Your task to perform on an android device: turn off javascript in the chrome app Image 0: 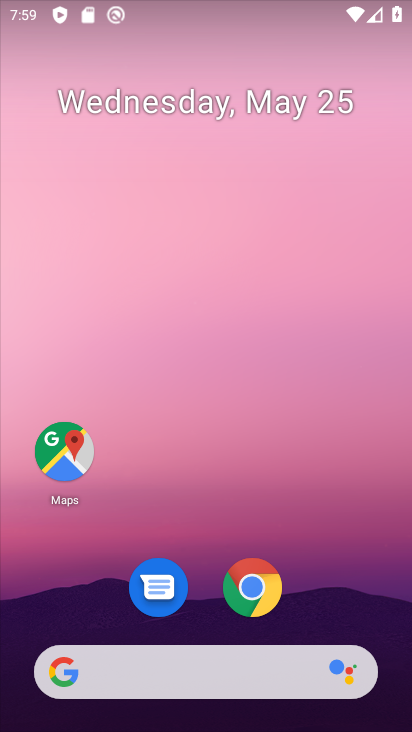
Step 0: click (250, 585)
Your task to perform on an android device: turn off javascript in the chrome app Image 1: 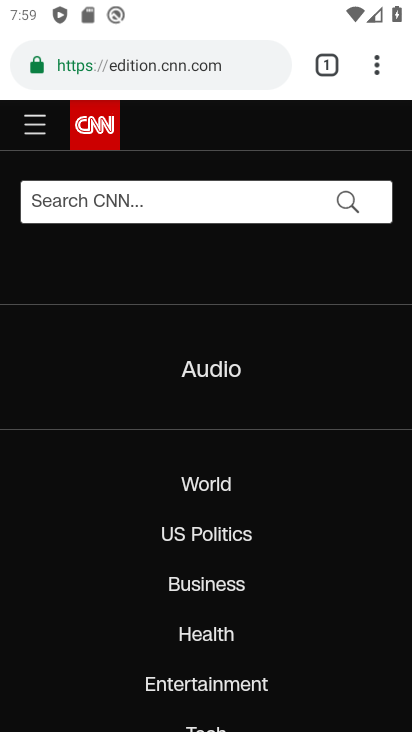
Step 1: drag from (375, 70) to (133, 634)
Your task to perform on an android device: turn off javascript in the chrome app Image 2: 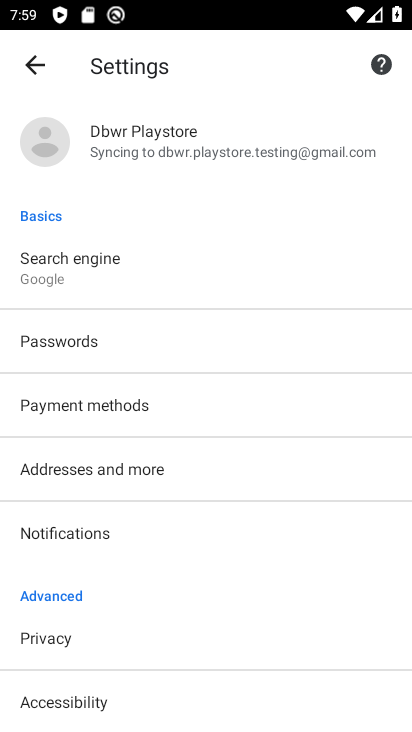
Step 2: drag from (174, 649) to (252, 259)
Your task to perform on an android device: turn off javascript in the chrome app Image 3: 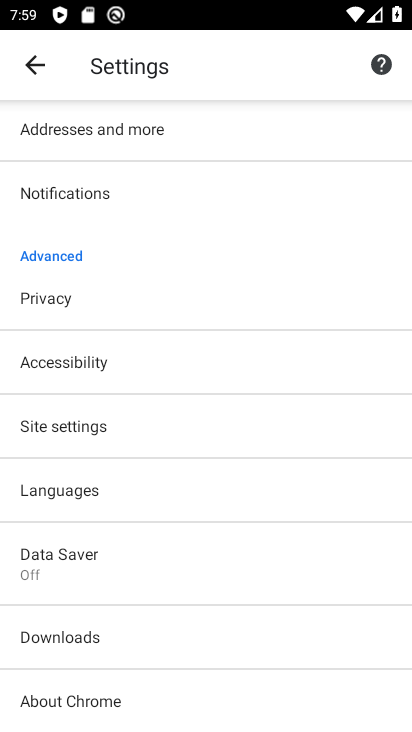
Step 3: click (71, 420)
Your task to perform on an android device: turn off javascript in the chrome app Image 4: 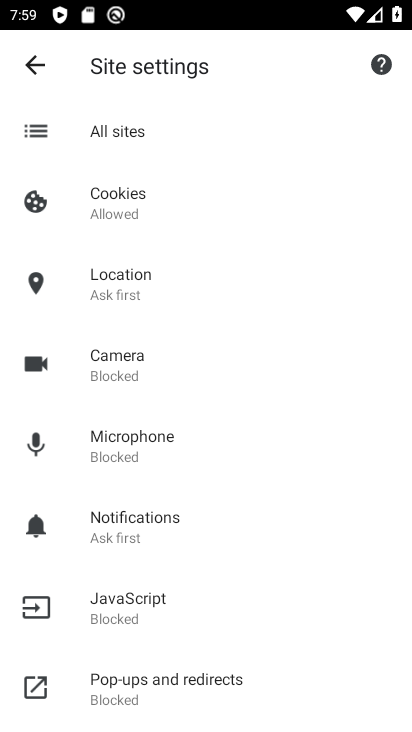
Step 4: click (126, 603)
Your task to perform on an android device: turn off javascript in the chrome app Image 5: 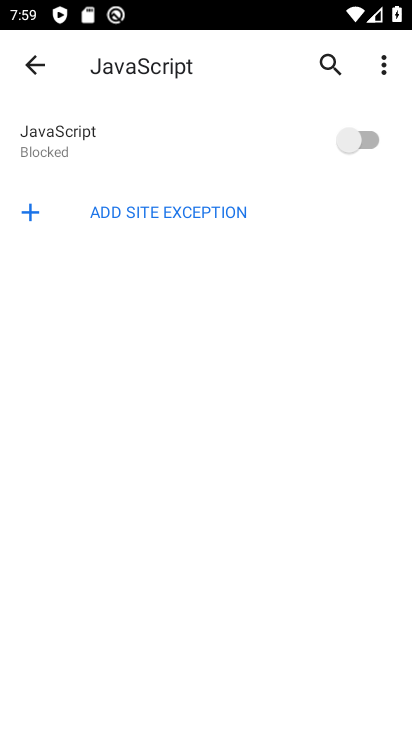
Step 5: task complete